Your task to perform on an android device: uninstall "The Home Depot" Image 0: 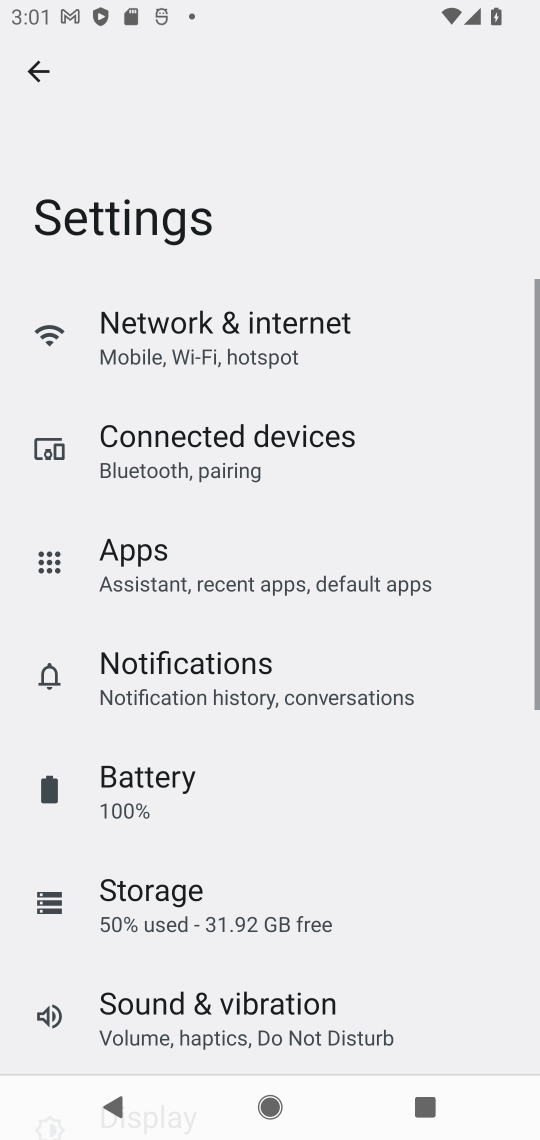
Step 0: press home button
Your task to perform on an android device: uninstall "The Home Depot" Image 1: 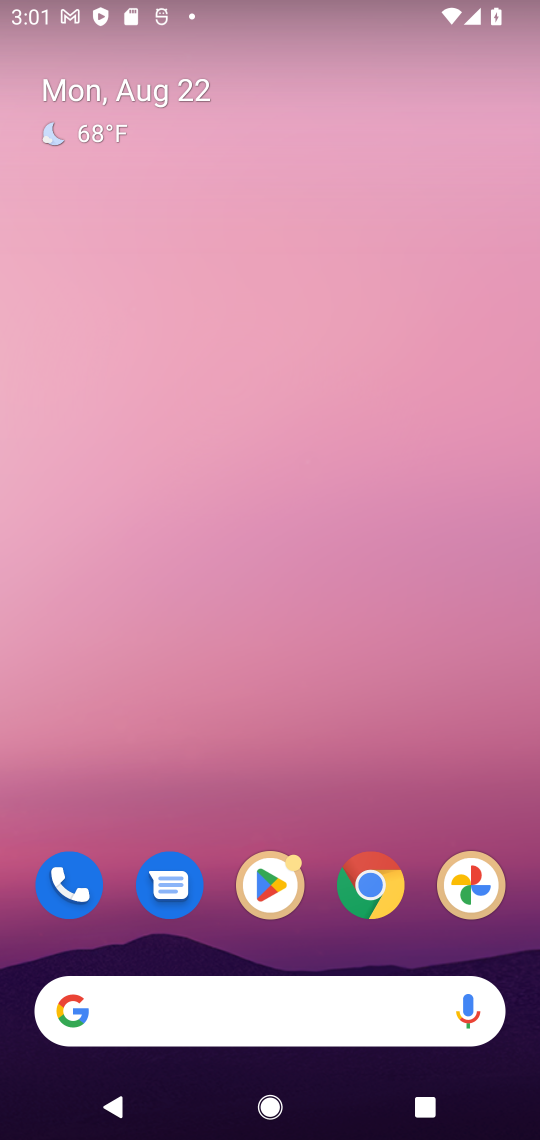
Step 1: click (267, 875)
Your task to perform on an android device: uninstall "The Home Depot" Image 2: 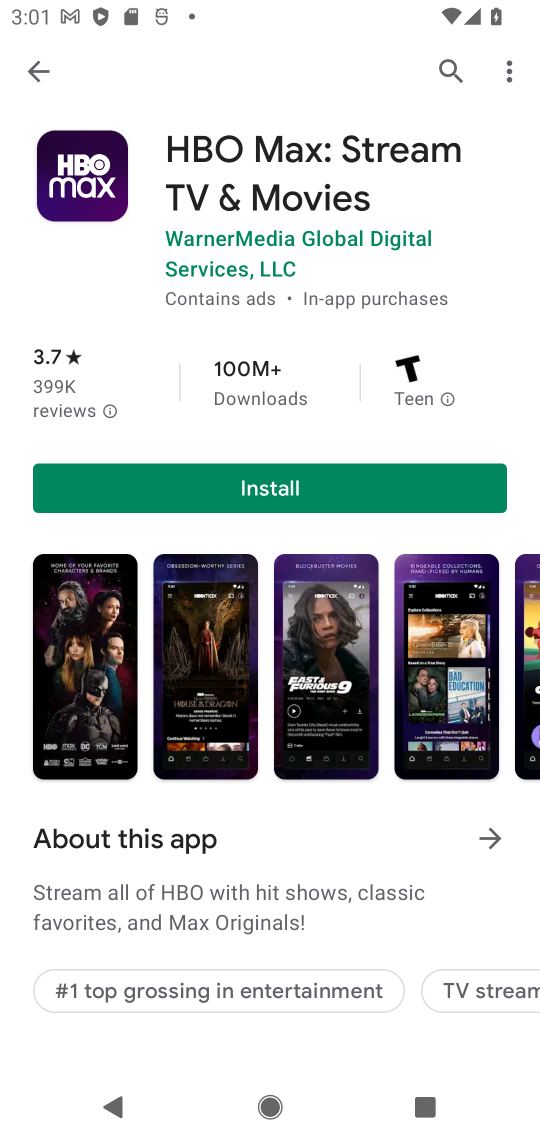
Step 2: click (45, 65)
Your task to perform on an android device: uninstall "The Home Depot" Image 3: 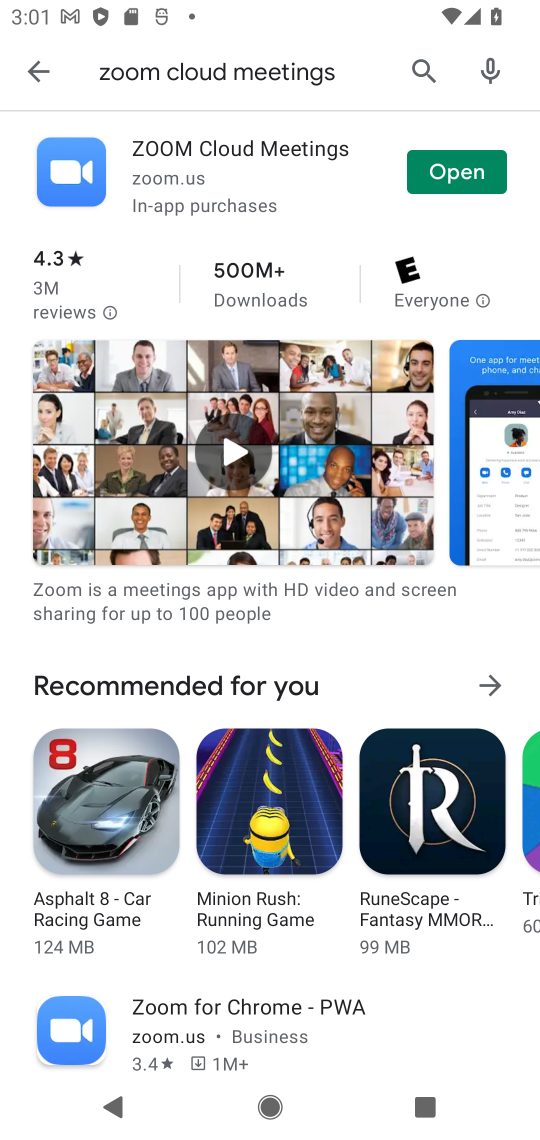
Step 3: click (424, 66)
Your task to perform on an android device: uninstall "The Home Depot" Image 4: 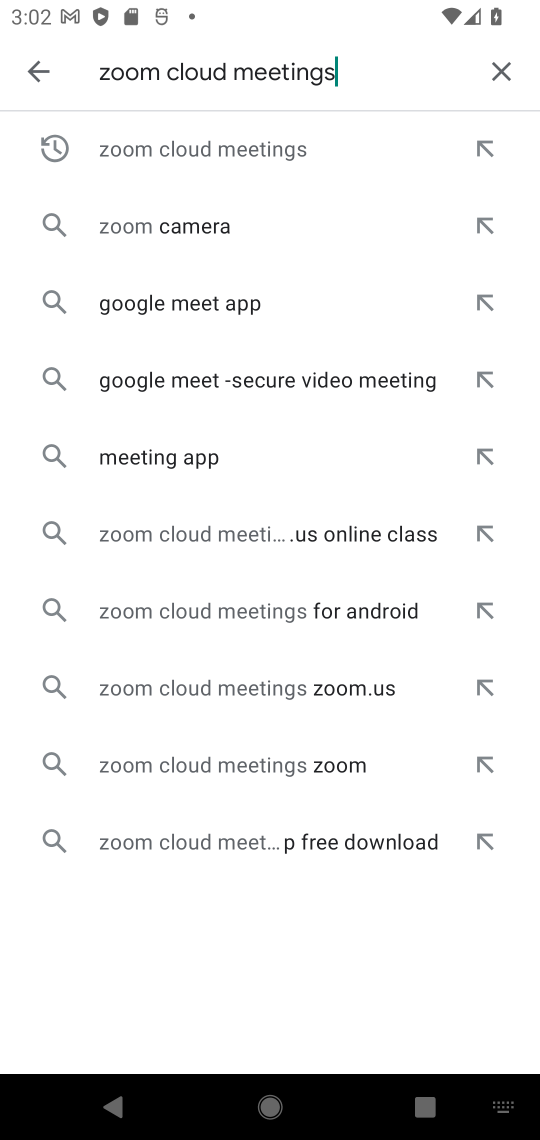
Step 4: click (491, 75)
Your task to perform on an android device: uninstall "The Home Depot" Image 5: 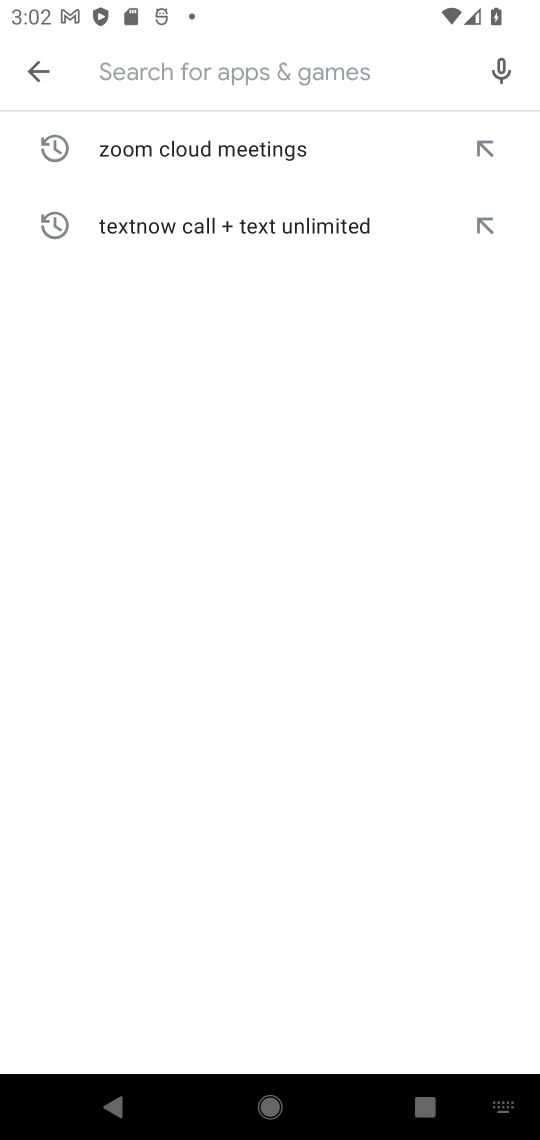
Step 5: type "The Home Depot"
Your task to perform on an android device: uninstall "The Home Depot" Image 6: 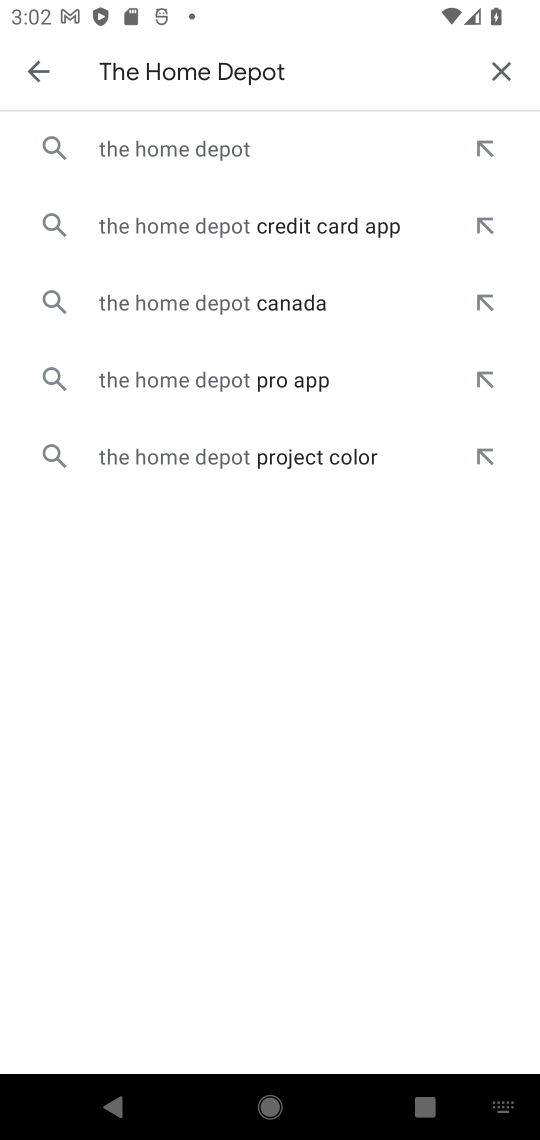
Step 6: click (220, 132)
Your task to perform on an android device: uninstall "The Home Depot" Image 7: 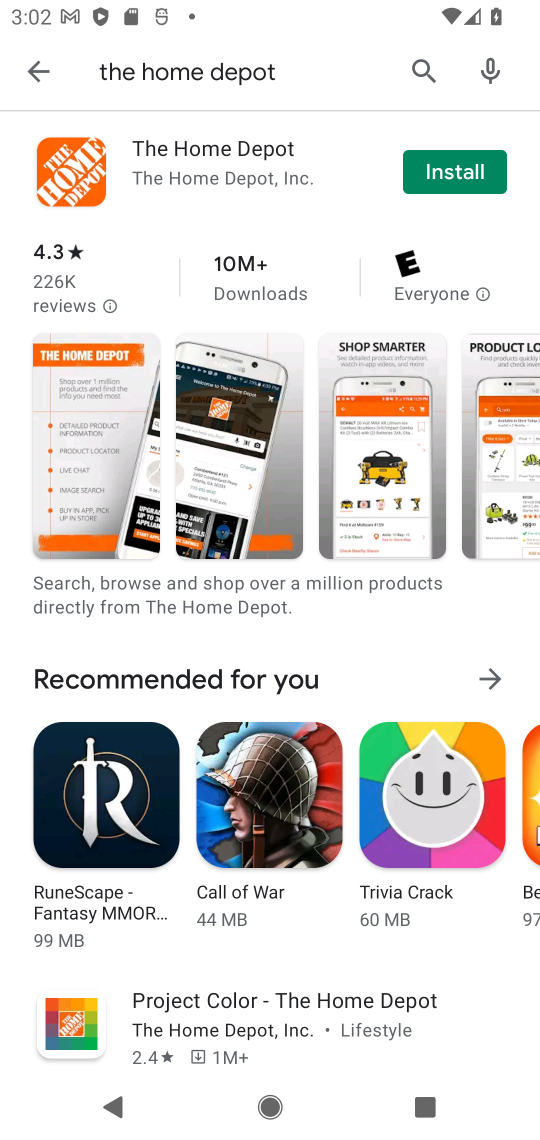
Step 7: click (190, 164)
Your task to perform on an android device: uninstall "The Home Depot" Image 8: 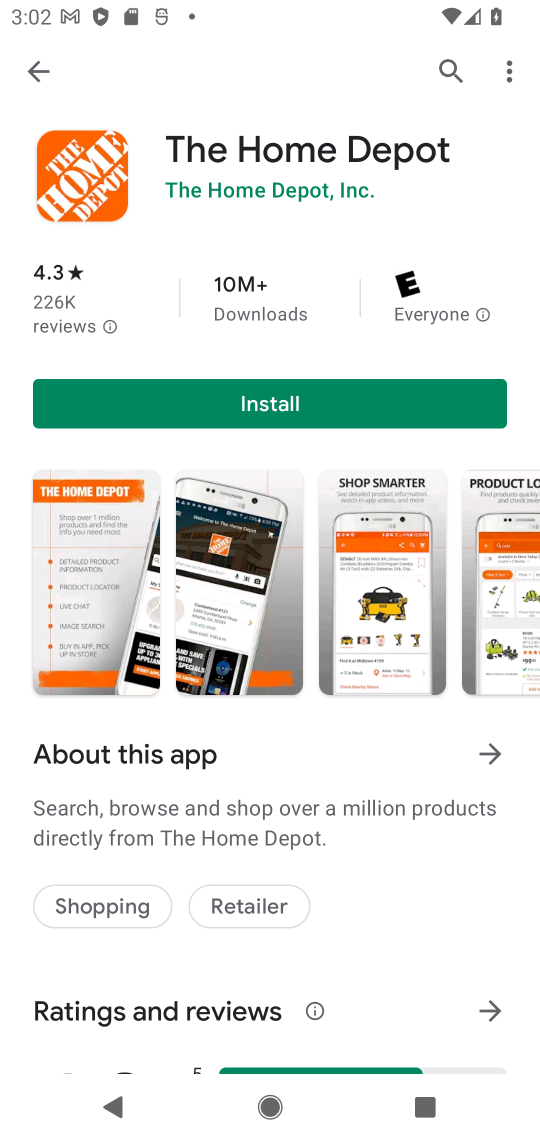
Step 8: task complete